Your task to perform on an android device: clear all cookies in the chrome app Image 0: 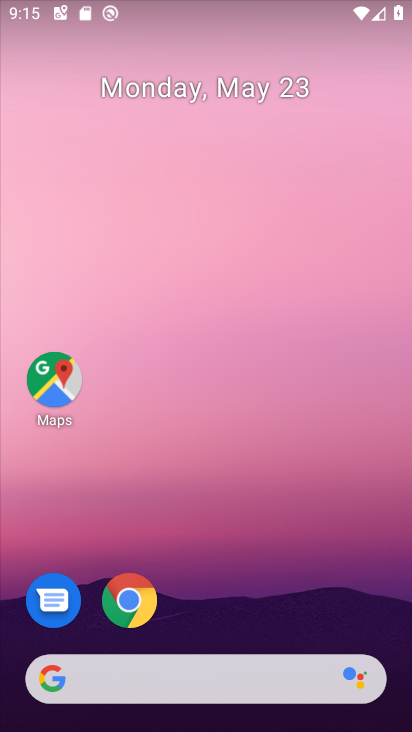
Step 0: click (138, 607)
Your task to perform on an android device: clear all cookies in the chrome app Image 1: 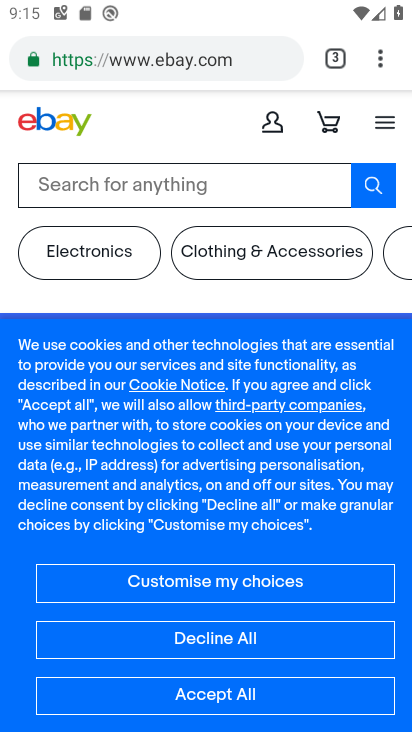
Step 1: click (382, 64)
Your task to perform on an android device: clear all cookies in the chrome app Image 2: 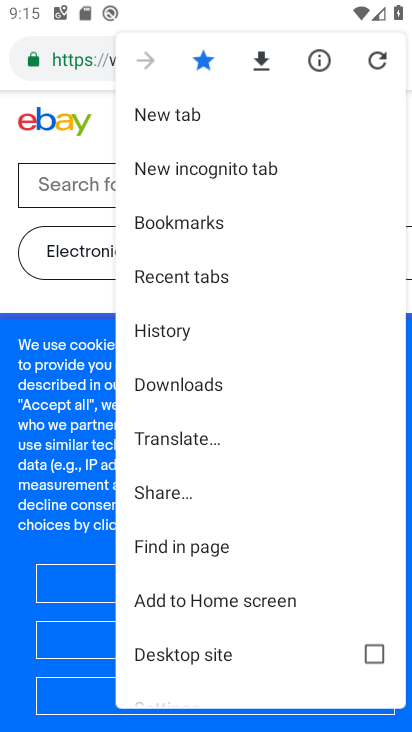
Step 2: click (164, 331)
Your task to perform on an android device: clear all cookies in the chrome app Image 3: 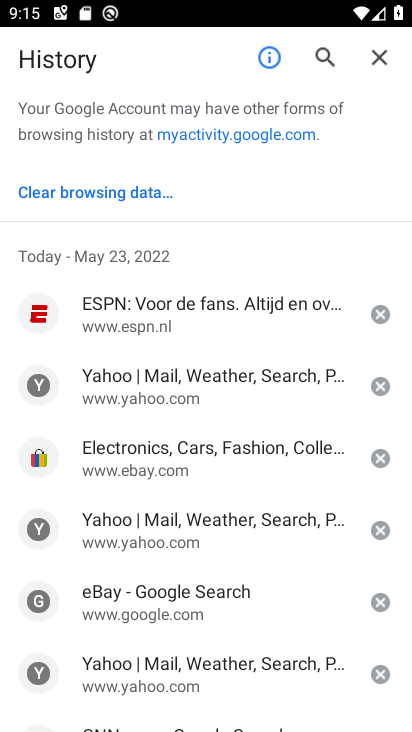
Step 3: click (83, 189)
Your task to perform on an android device: clear all cookies in the chrome app Image 4: 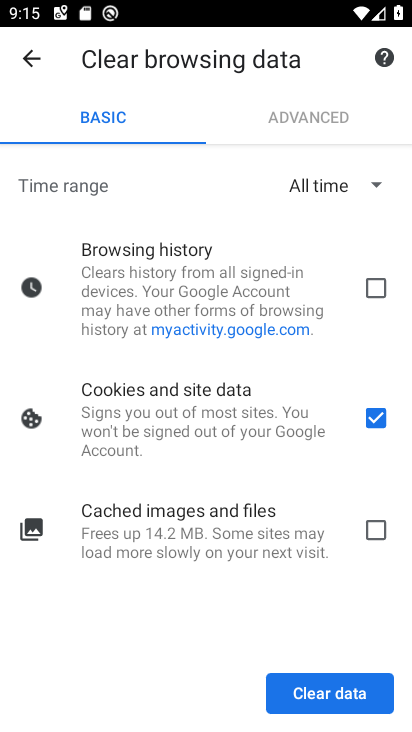
Step 4: click (327, 688)
Your task to perform on an android device: clear all cookies in the chrome app Image 5: 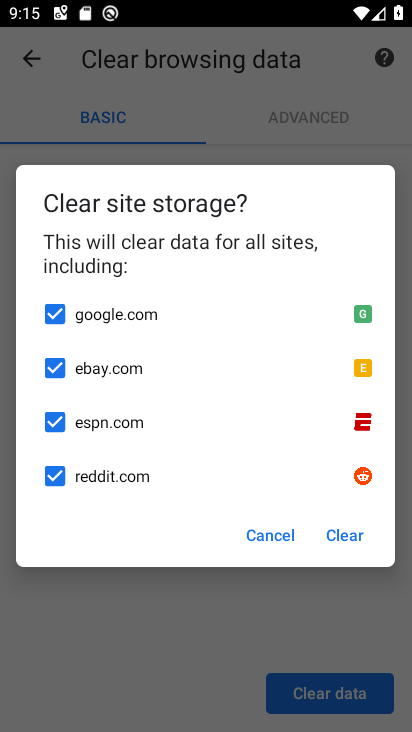
Step 5: click (343, 530)
Your task to perform on an android device: clear all cookies in the chrome app Image 6: 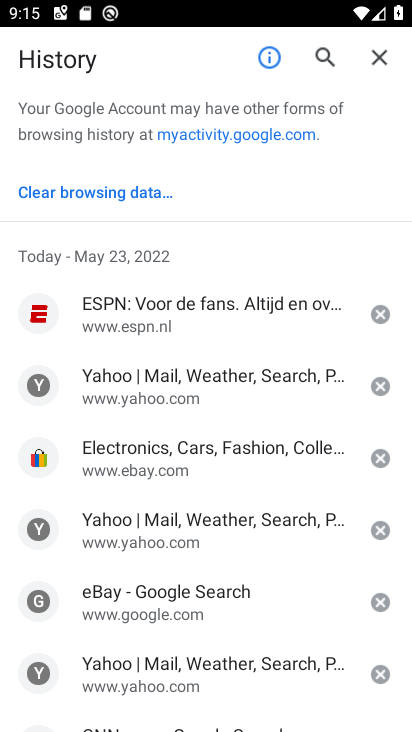
Step 6: task complete